Your task to perform on an android device: Open calendar and show me the third week of next month Image 0: 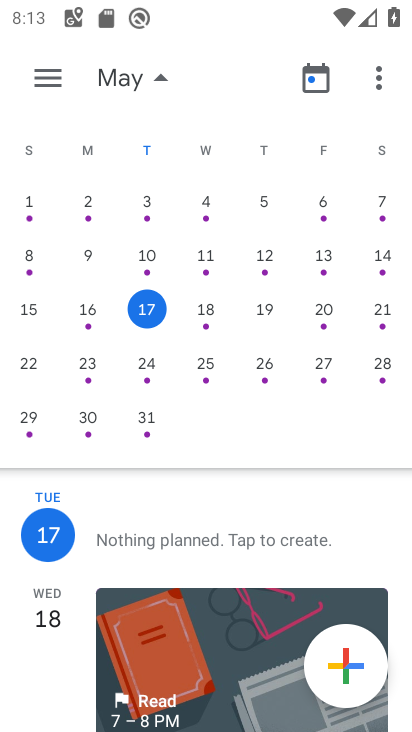
Step 0: press home button
Your task to perform on an android device: Open calendar and show me the third week of next month Image 1: 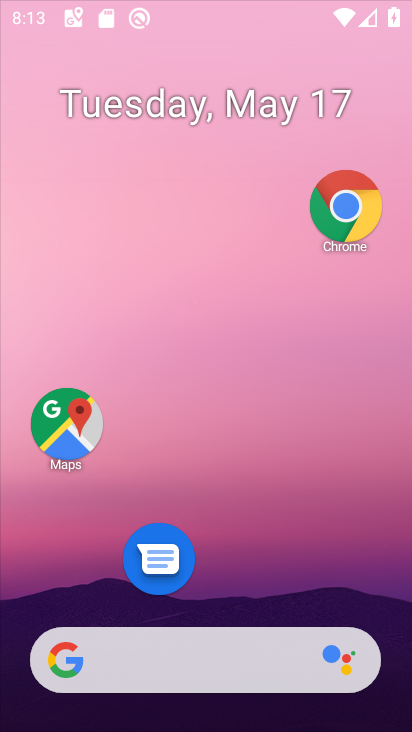
Step 1: drag from (237, 527) to (340, 57)
Your task to perform on an android device: Open calendar and show me the third week of next month Image 2: 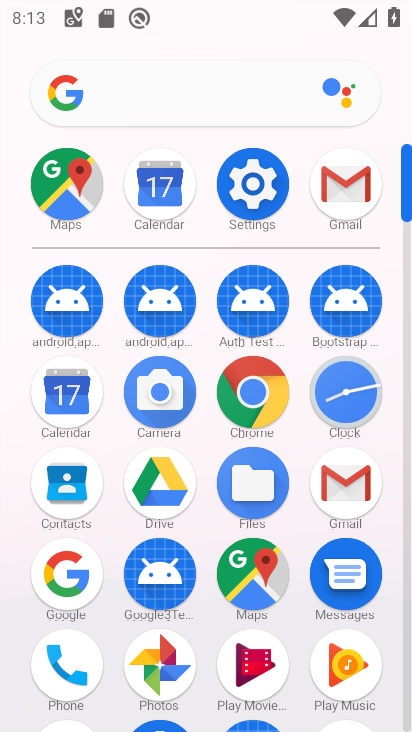
Step 2: click (77, 417)
Your task to perform on an android device: Open calendar and show me the third week of next month Image 3: 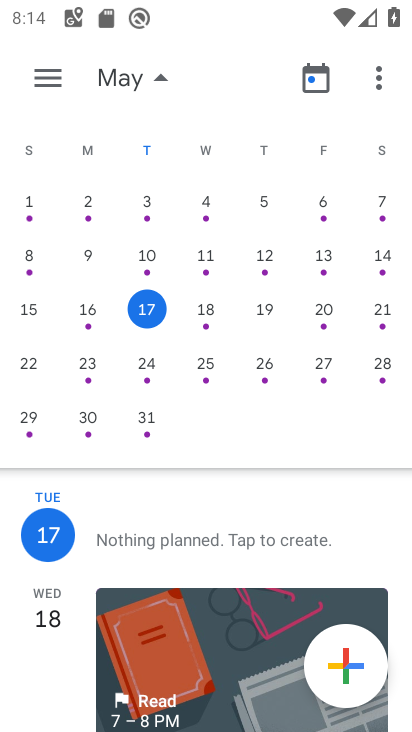
Step 3: drag from (340, 366) to (41, 701)
Your task to perform on an android device: Open calendar and show me the third week of next month Image 4: 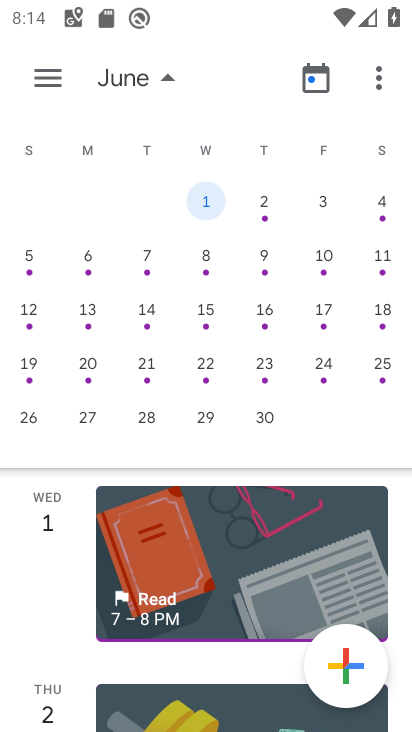
Step 4: click (39, 372)
Your task to perform on an android device: Open calendar and show me the third week of next month Image 5: 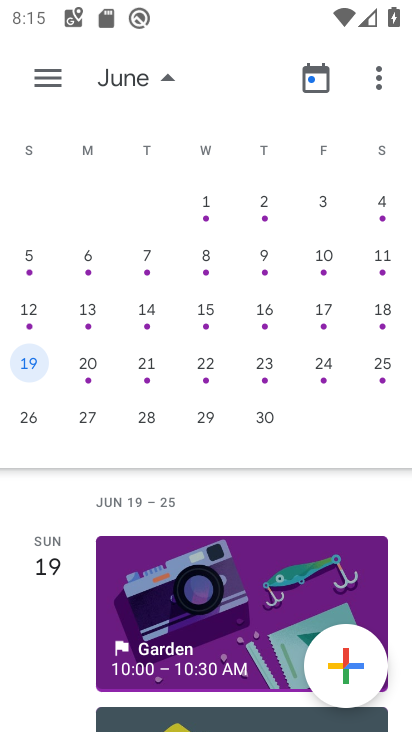
Step 5: task complete